Your task to perform on an android device: Do I have any events tomorrow? Image 0: 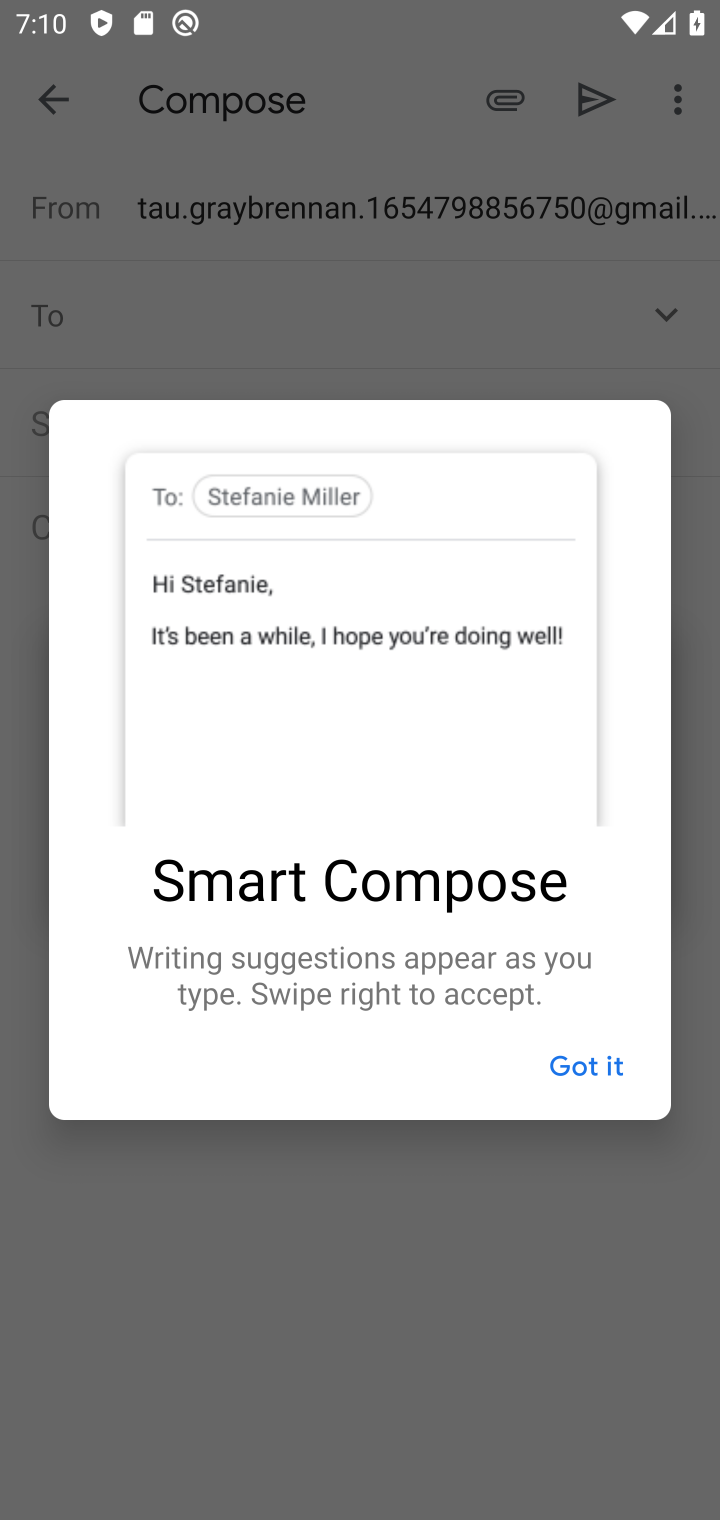
Step 0: press home button
Your task to perform on an android device: Do I have any events tomorrow? Image 1: 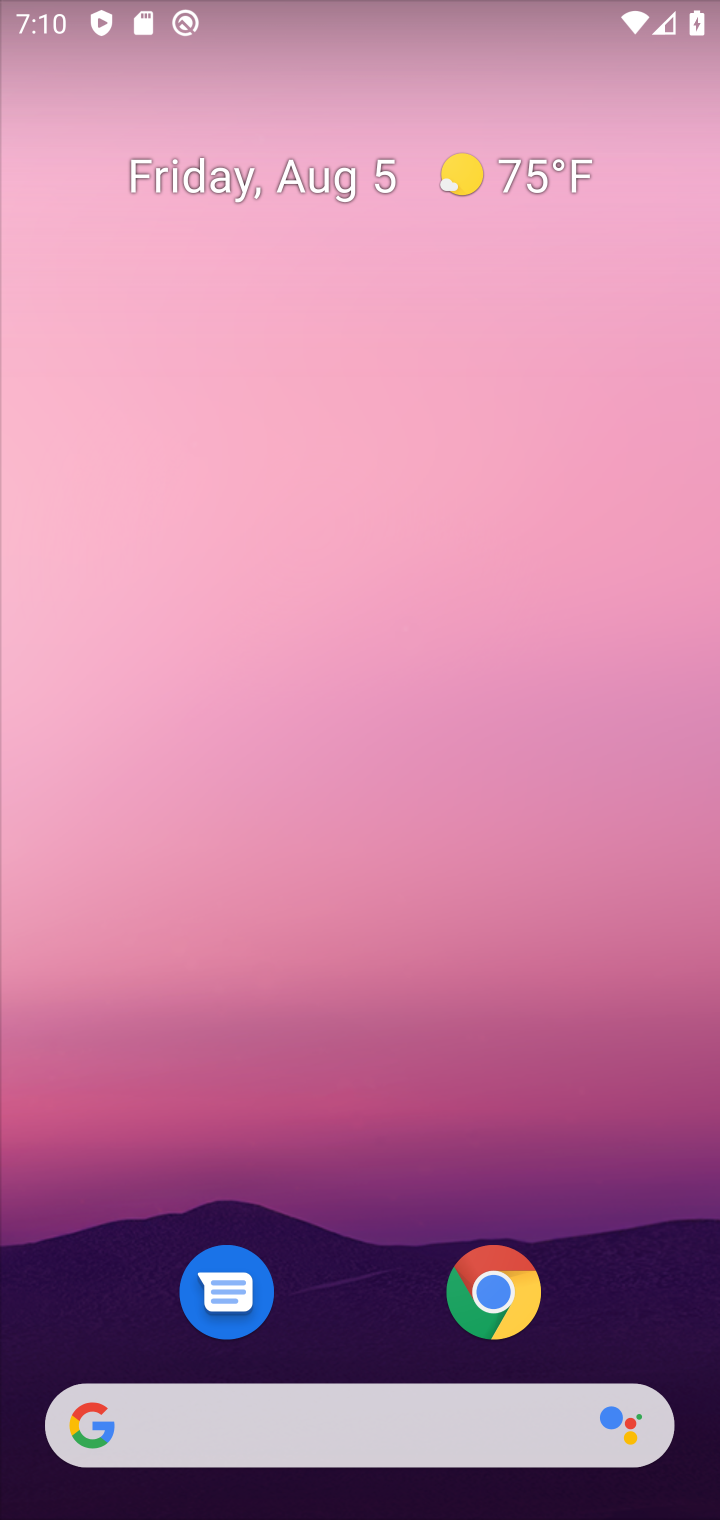
Step 1: drag from (348, 1198) to (321, 104)
Your task to perform on an android device: Do I have any events tomorrow? Image 2: 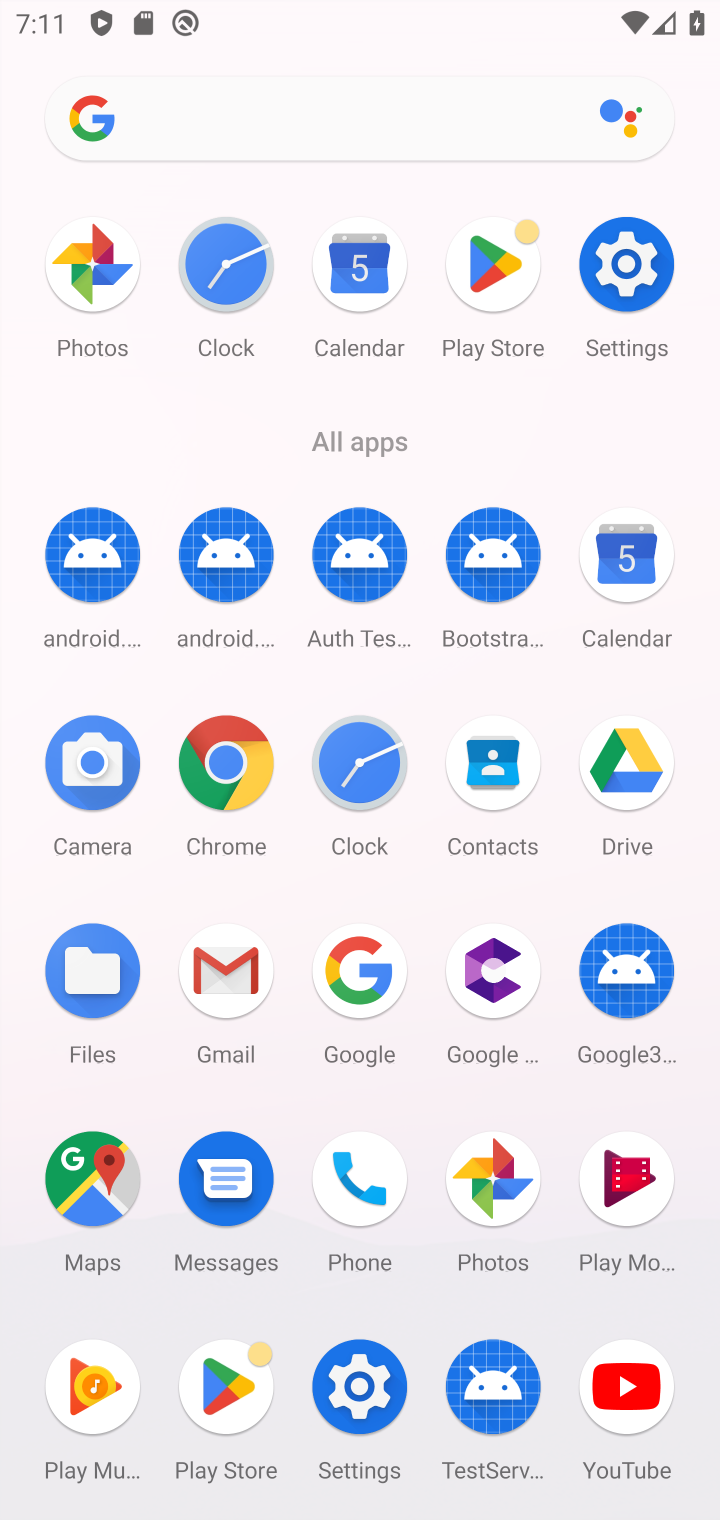
Step 2: click (622, 564)
Your task to perform on an android device: Do I have any events tomorrow? Image 3: 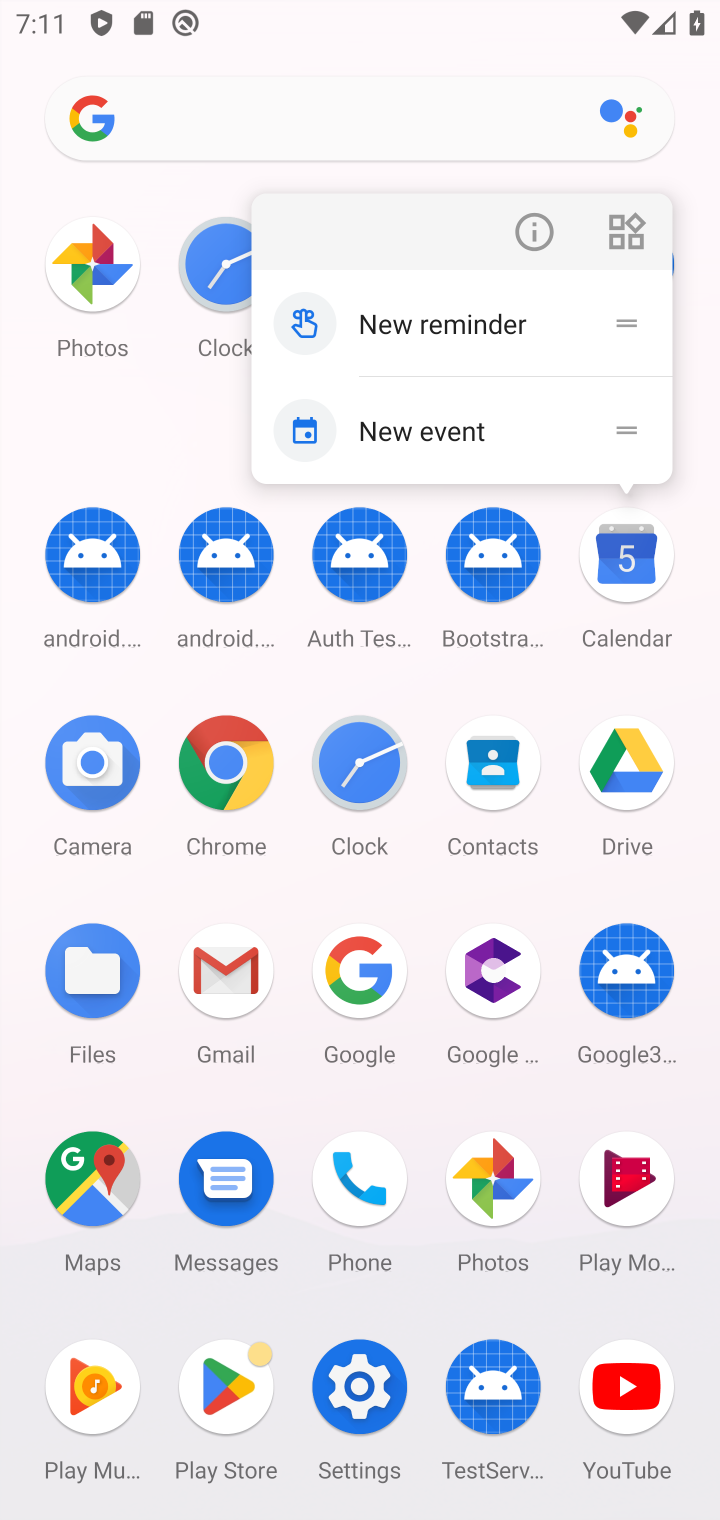
Step 3: click (622, 564)
Your task to perform on an android device: Do I have any events tomorrow? Image 4: 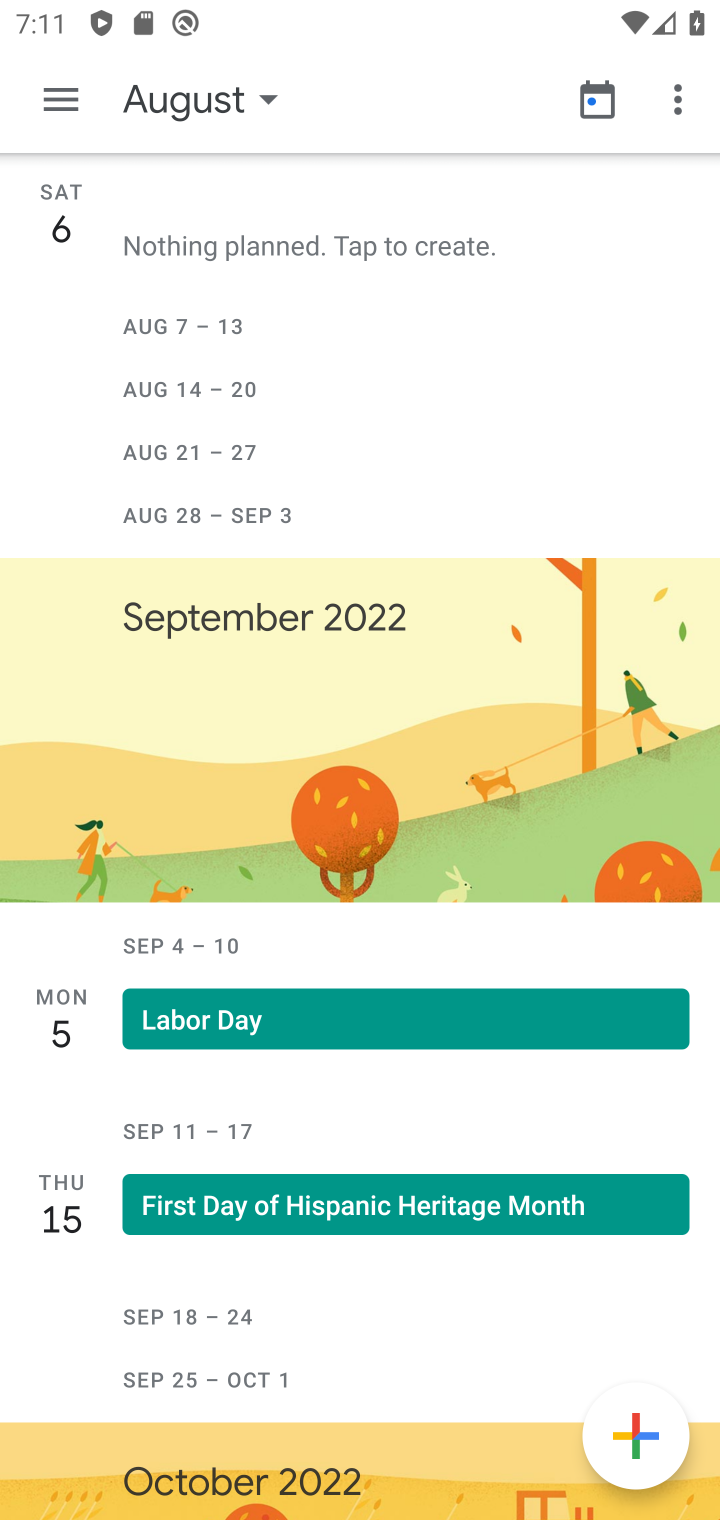
Step 4: task complete